Your task to perform on an android device: Open Wikipedia Image 0: 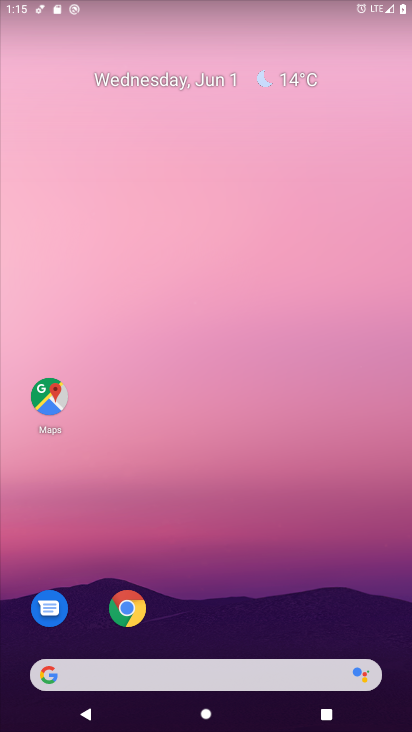
Step 0: click (129, 607)
Your task to perform on an android device: Open Wikipedia Image 1: 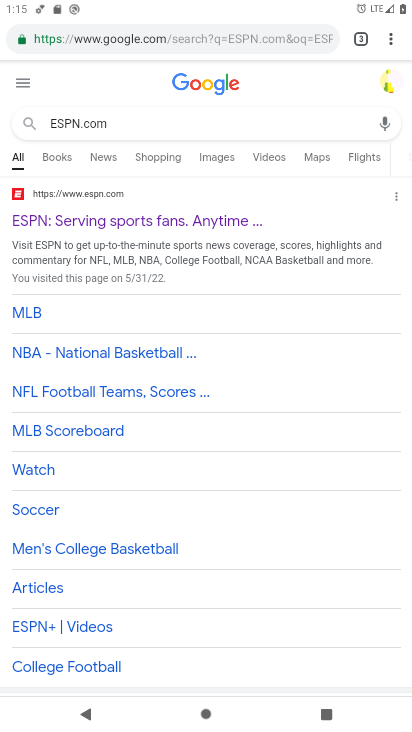
Step 1: click (190, 36)
Your task to perform on an android device: Open Wikipedia Image 2: 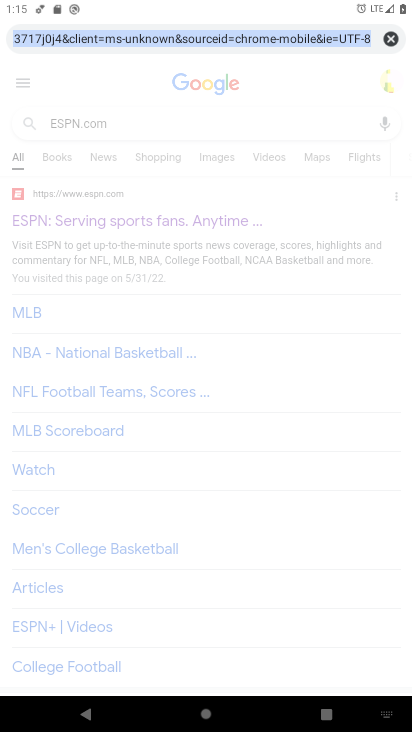
Step 2: type "wikipedia"
Your task to perform on an android device: Open Wikipedia Image 3: 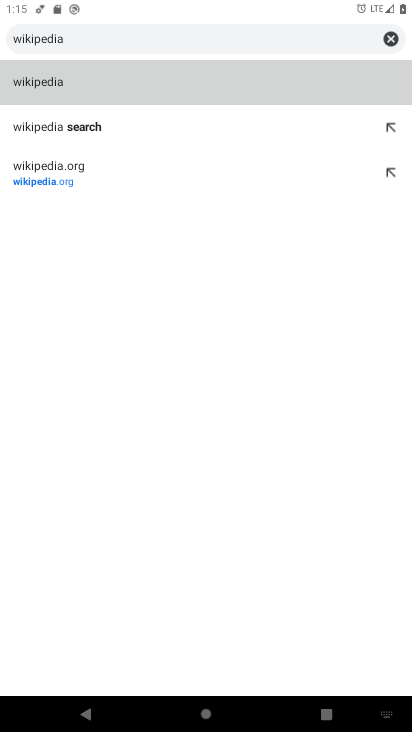
Step 3: click (86, 90)
Your task to perform on an android device: Open Wikipedia Image 4: 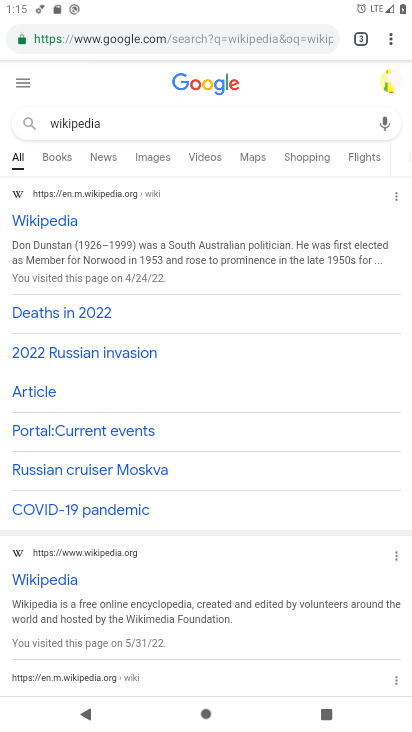
Step 4: task complete